Your task to perform on an android device: turn off wifi Image 0: 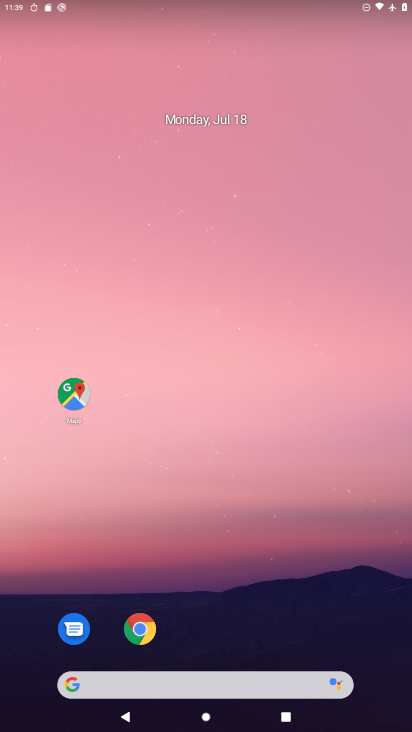
Step 0: drag from (262, 497) to (232, 23)
Your task to perform on an android device: turn off wifi Image 1: 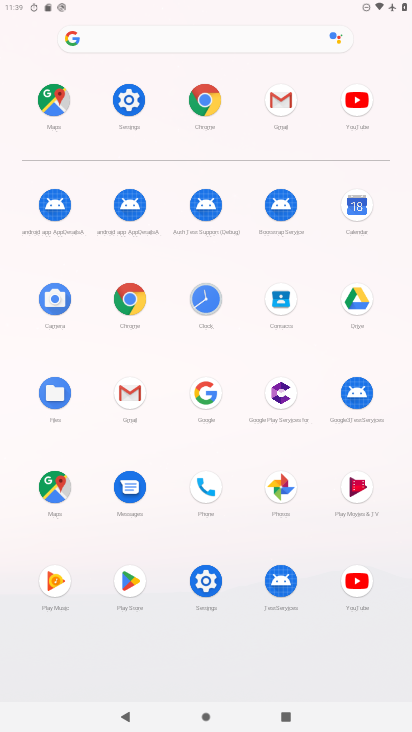
Step 1: click (131, 98)
Your task to perform on an android device: turn off wifi Image 2: 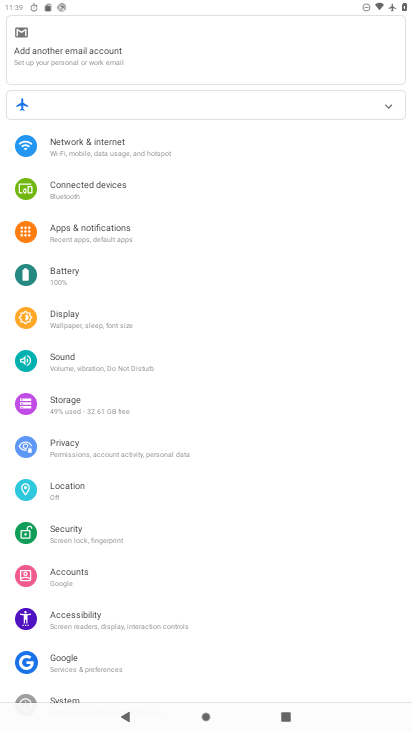
Step 2: click (132, 154)
Your task to perform on an android device: turn off wifi Image 3: 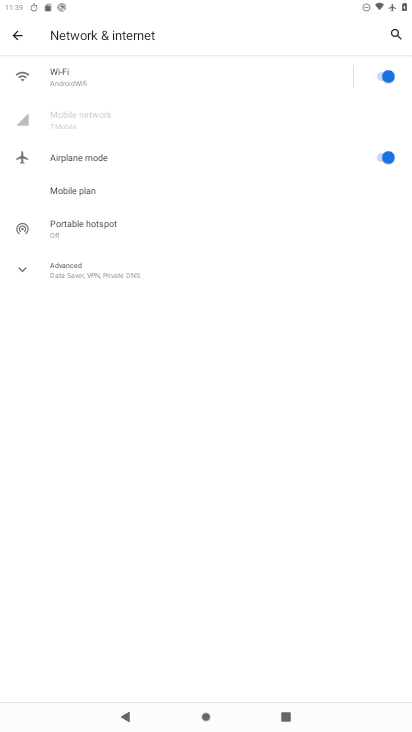
Step 3: click (385, 70)
Your task to perform on an android device: turn off wifi Image 4: 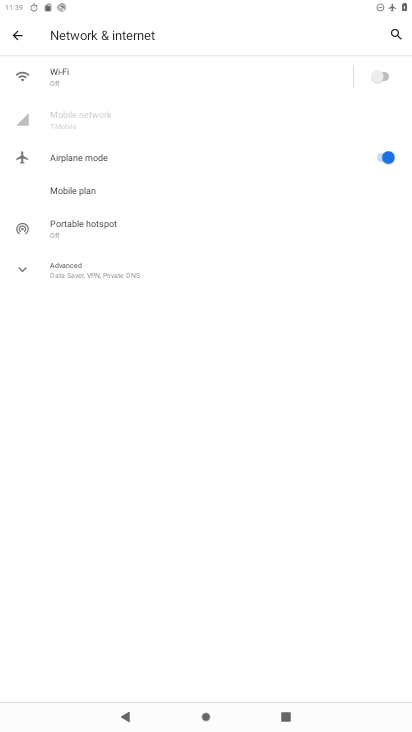
Step 4: task complete